Your task to perform on an android device: Open Youtube and go to the subscriptions tab Image 0: 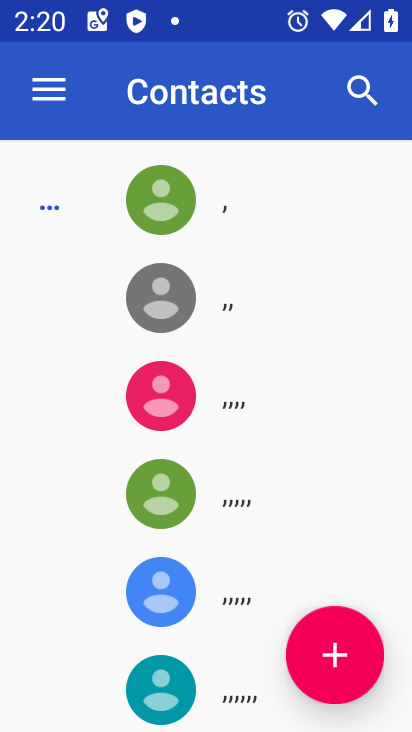
Step 0: press home button
Your task to perform on an android device: Open Youtube and go to the subscriptions tab Image 1: 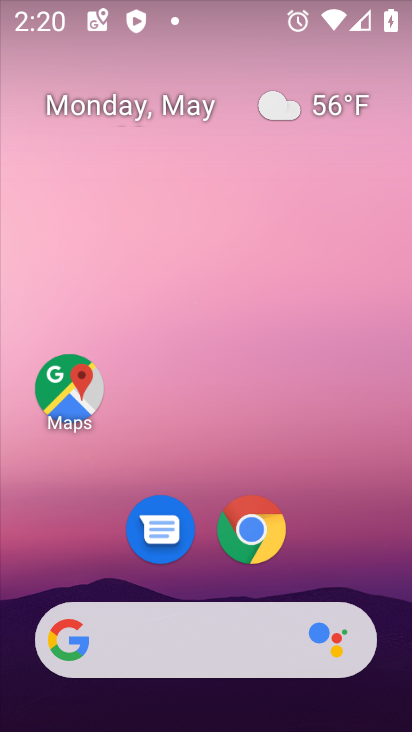
Step 1: drag from (306, 575) to (309, 61)
Your task to perform on an android device: Open Youtube and go to the subscriptions tab Image 2: 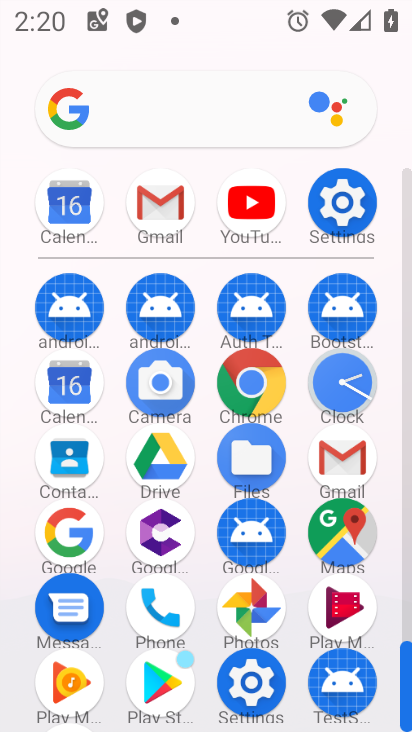
Step 2: click (255, 208)
Your task to perform on an android device: Open Youtube and go to the subscriptions tab Image 3: 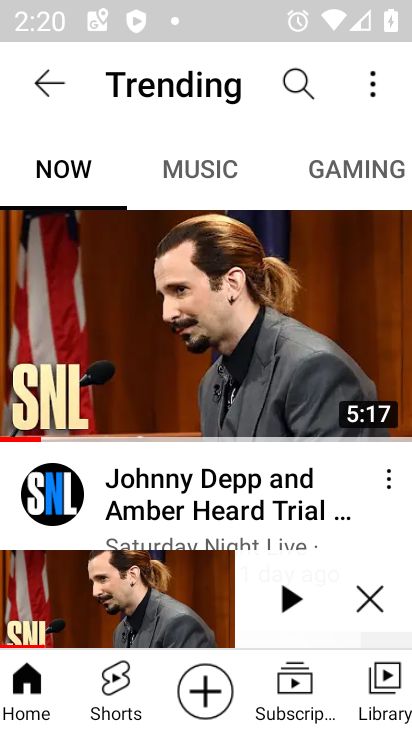
Step 3: click (307, 697)
Your task to perform on an android device: Open Youtube and go to the subscriptions tab Image 4: 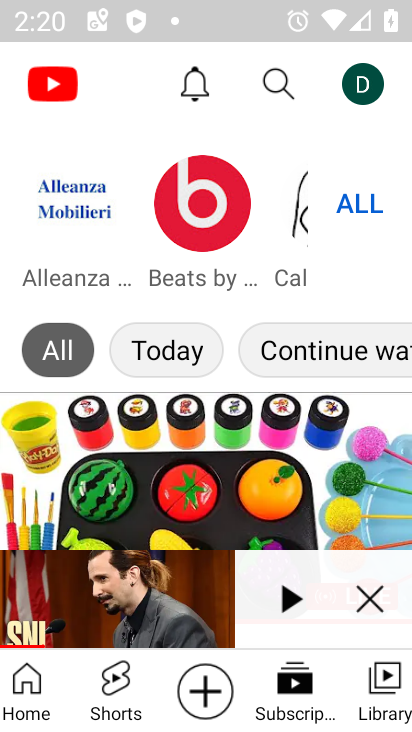
Step 4: task complete